Your task to perform on an android device: Go to eBay Image 0: 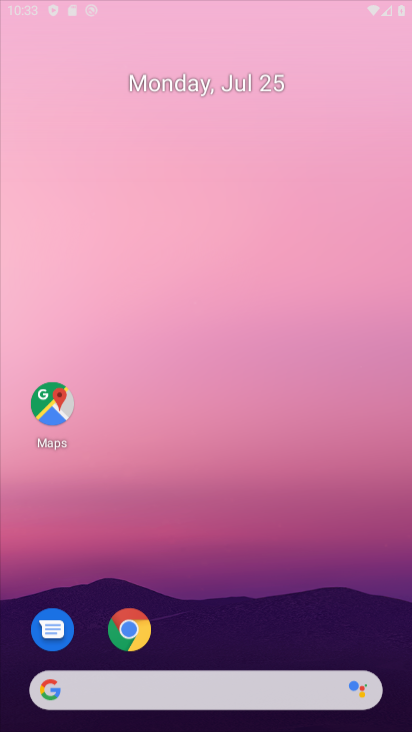
Step 0: drag from (250, 606) to (302, 274)
Your task to perform on an android device: Go to eBay Image 1: 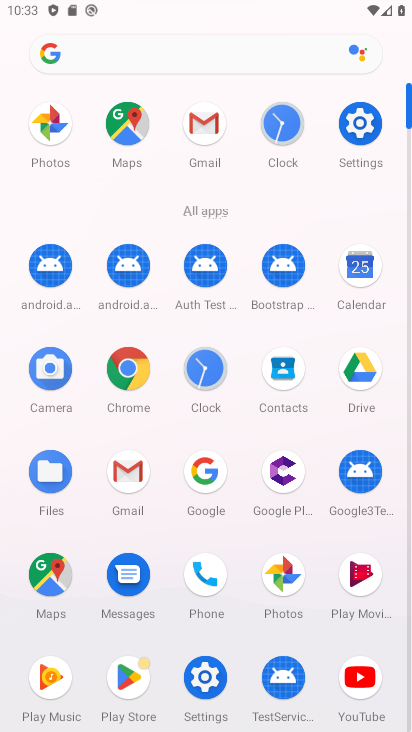
Step 1: click (209, 45)
Your task to perform on an android device: Go to eBay Image 2: 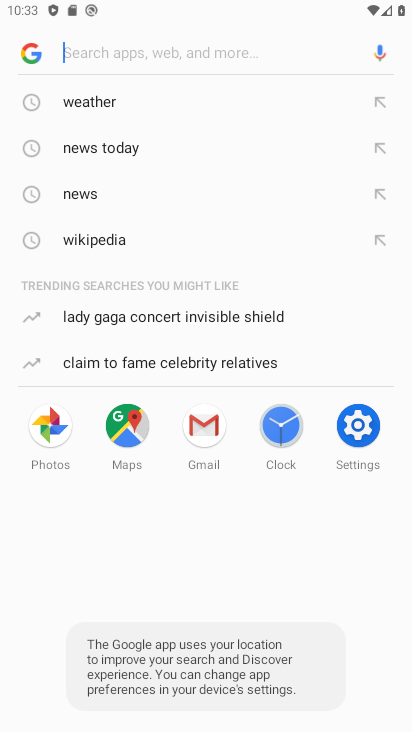
Step 2: type "ebay"
Your task to perform on an android device: Go to eBay Image 3: 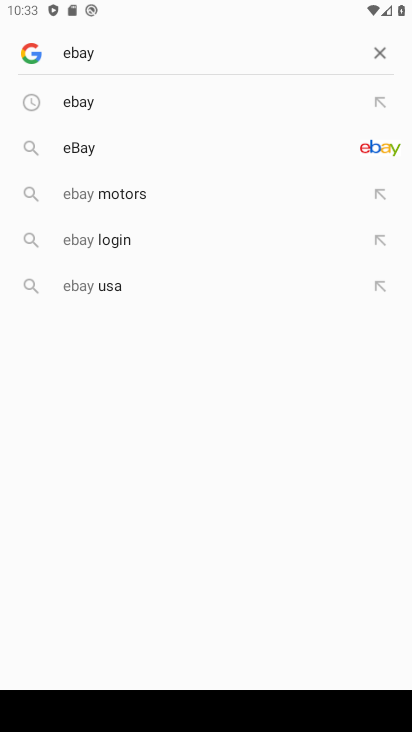
Step 3: click (90, 146)
Your task to perform on an android device: Go to eBay Image 4: 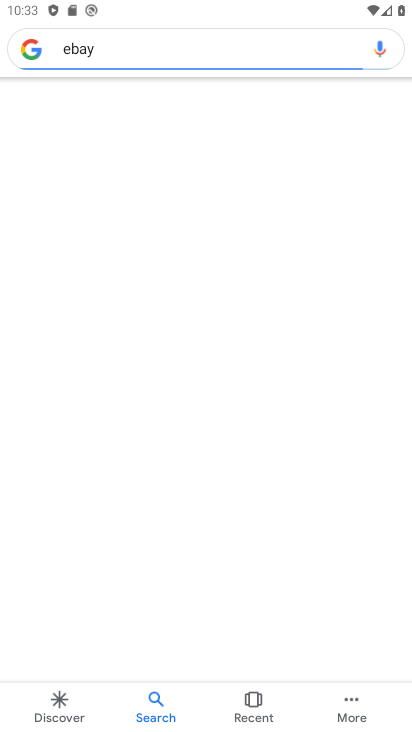
Step 4: drag from (222, 465) to (213, 263)
Your task to perform on an android device: Go to eBay Image 5: 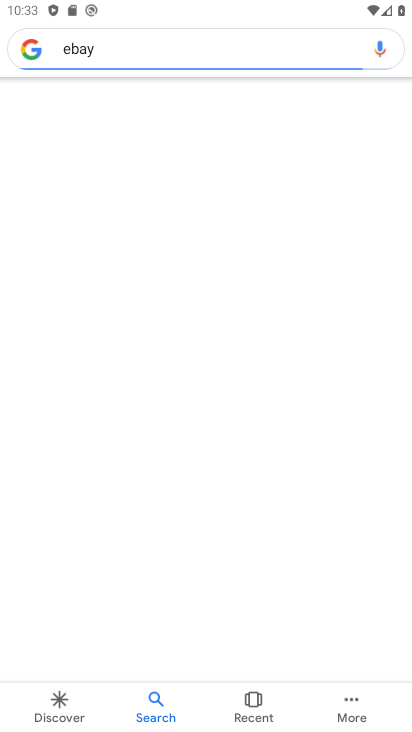
Step 5: drag from (192, 194) to (216, 646)
Your task to perform on an android device: Go to eBay Image 6: 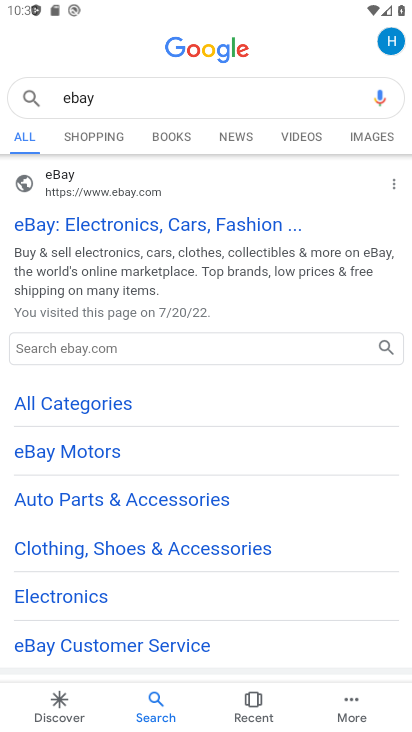
Step 6: click (118, 227)
Your task to perform on an android device: Go to eBay Image 7: 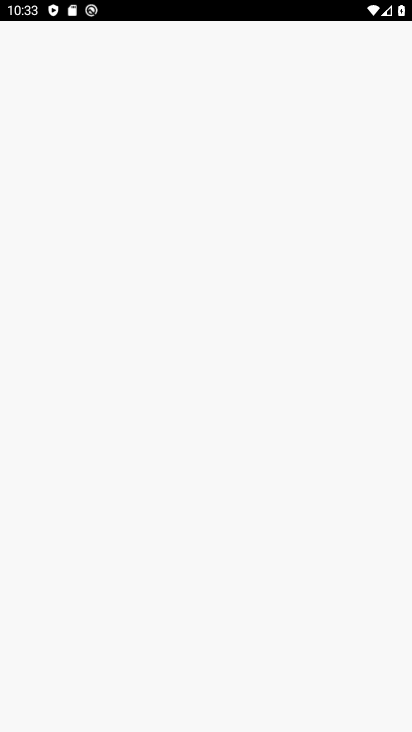
Step 7: task complete